Your task to perform on an android device: toggle pop-ups in chrome Image 0: 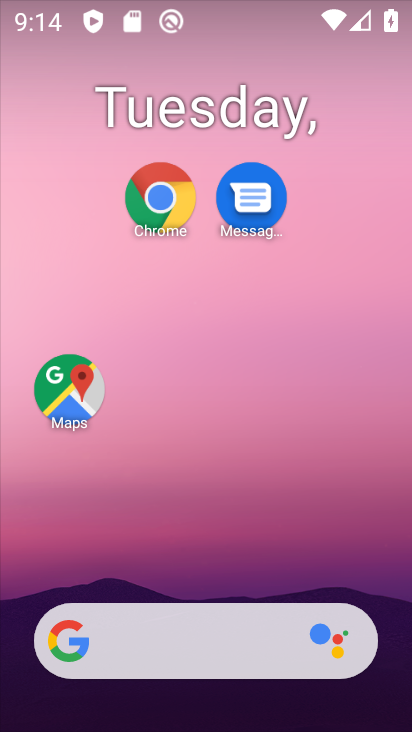
Step 0: drag from (211, 591) to (196, 17)
Your task to perform on an android device: toggle pop-ups in chrome Image 1: 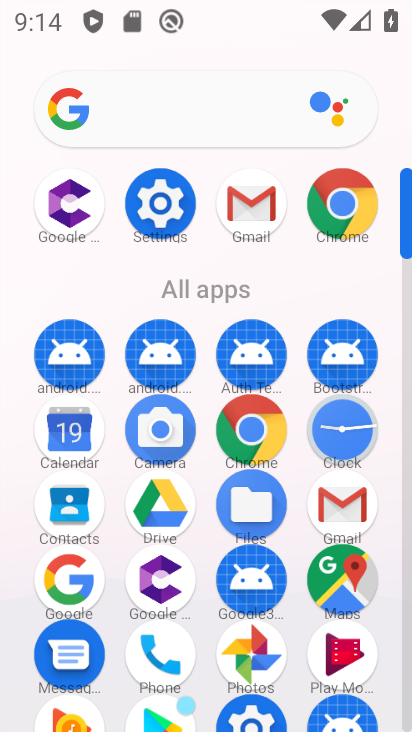
Step 1: click (357, 224)
Your task to perform on an android device: toggle pop-ups in chrome Image 2: 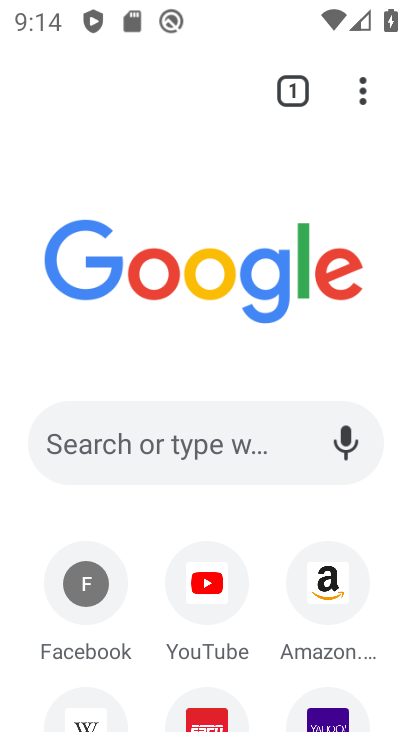
Step 2: click (356, 86)
Your task to perform on an android device: toggle pop-ups in chrome Image 3: 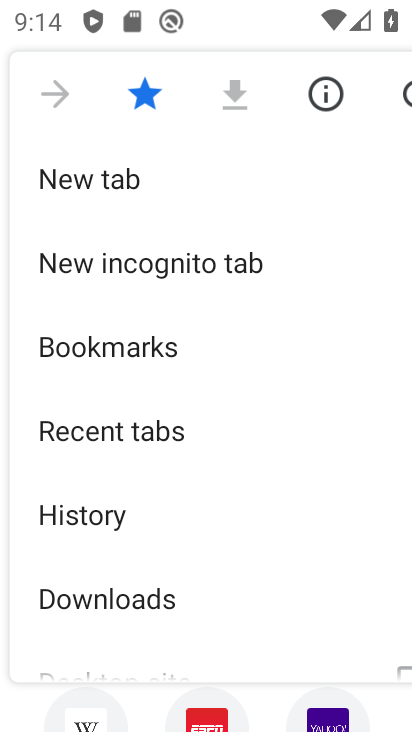
Step 3: drag from (240, 551) to (180, 211)
Your task to perform on an android device: toggle pop-ups in chrome Image 4: 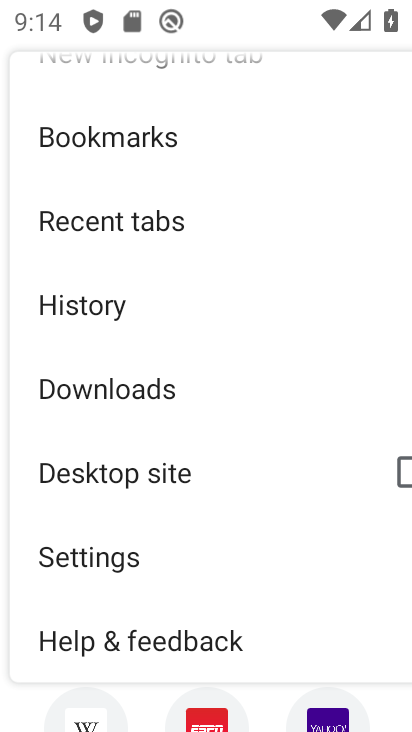
Step 4: click (98, 565)
Your task to perform on an android device: toggle pop-ups in chrome Image 5: 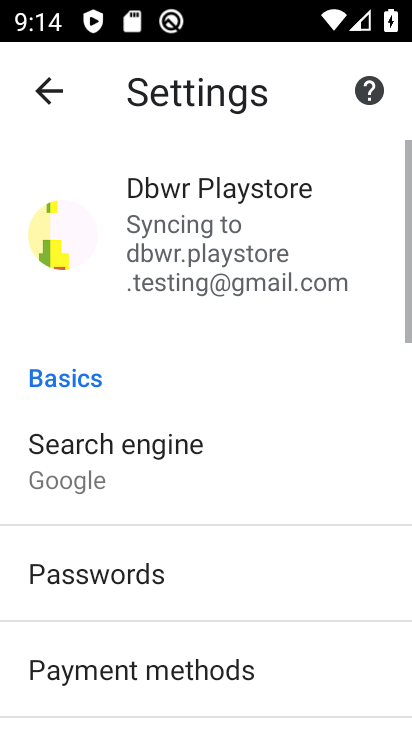
Step 5: drag from (156, 627) to (118, 179)
Your task to perform on an android device: toggle pop-ups in chrome Image 6: 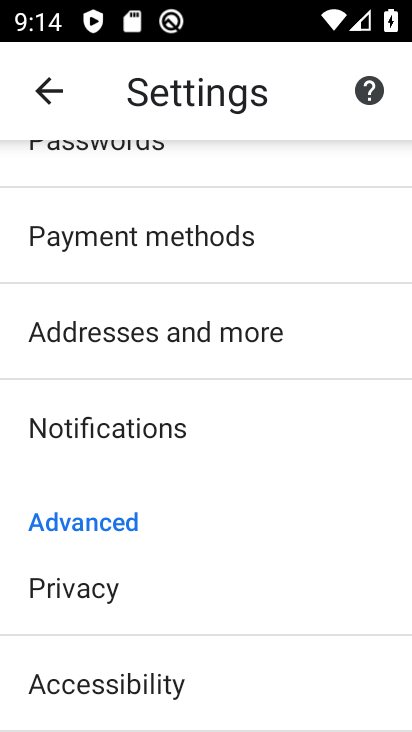
Step 6: drag from (171, 570) to (154, 277)
Your task to perform on an android device: toggle pop-ups in chrome Image 7: 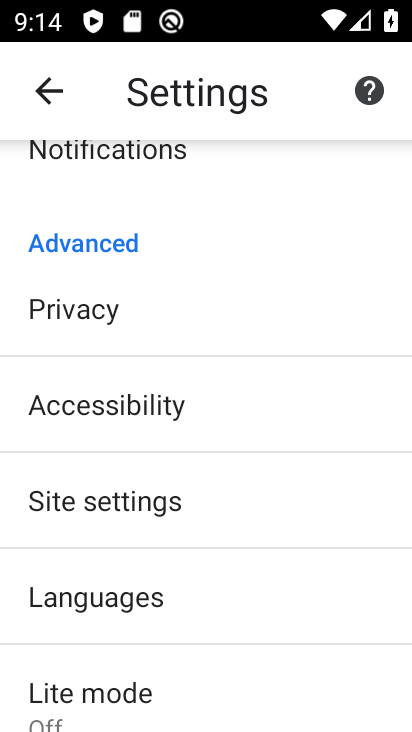
Step 7: click (146, 511)
Your task to perform on an android device: toggle pop-ups in chrome Image 8: 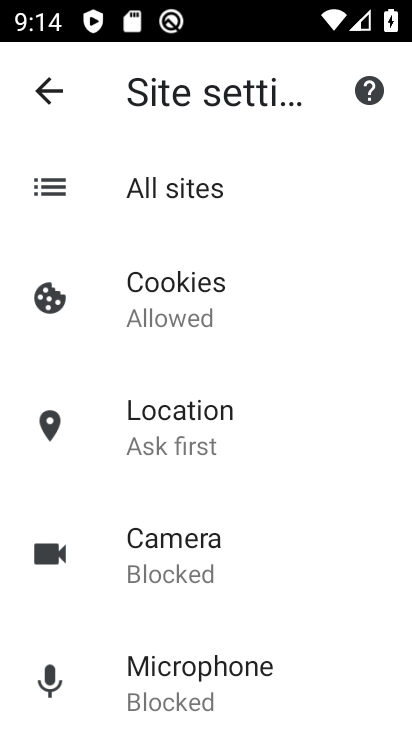
Step 8: drag from (245, 608) to (222, 232)
Your task to perform on an android device: toggle pop-ups in chrome Image 9: 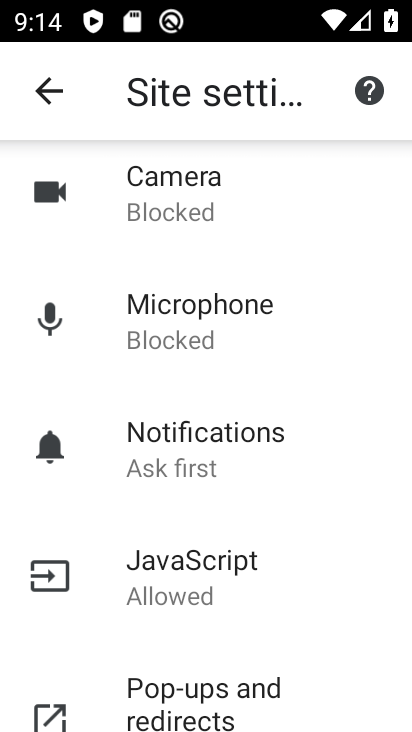
Step 9: click (250, 663)
Your task to perform on an android device: toggle pop-ups in chrome Image 10: 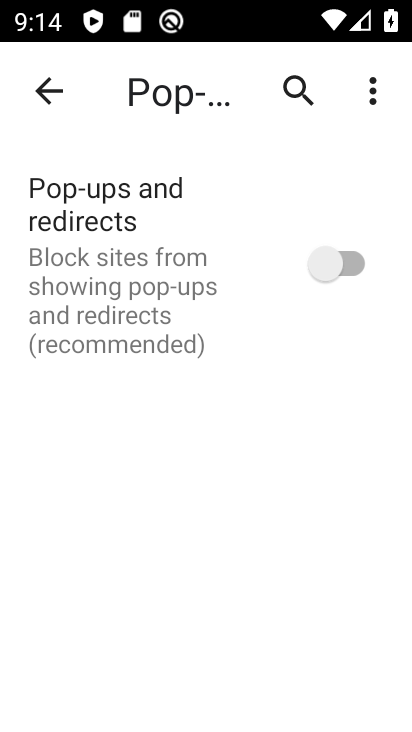
Step 10: click (326, 257)
Your task to perform on an android device: toggle pop-ups in chrome Image 11: 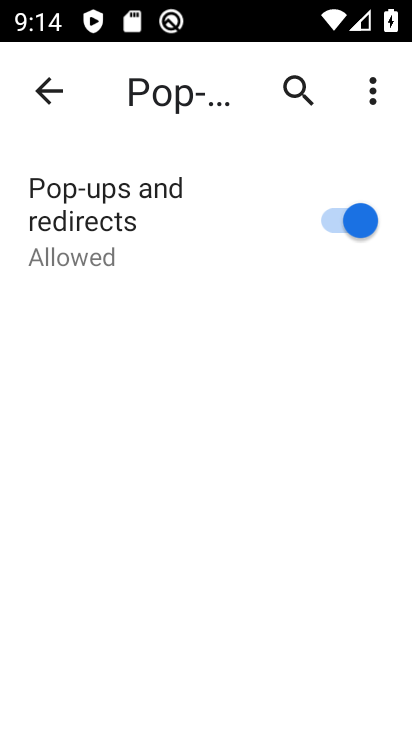
Step 11: task complete